Your task to perform on an android device: uninstall "Spotify: Music and Podcasts" Image 0: 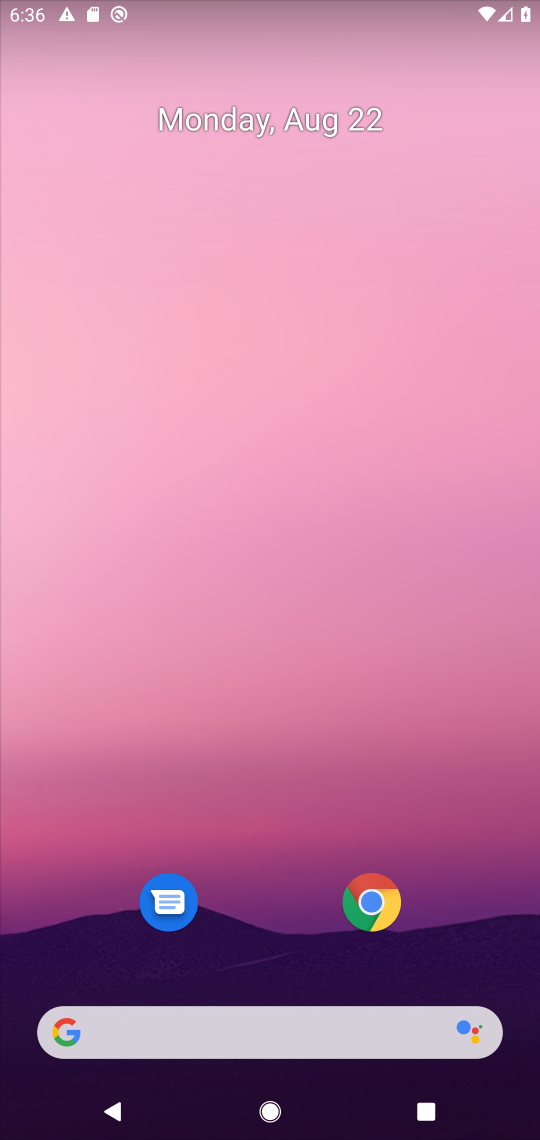
Step 0: drag from (230, 951) to (246, 10)
Your task to perform on an android device: uninstall "Spotify: Music and Podcasts" Image 1: 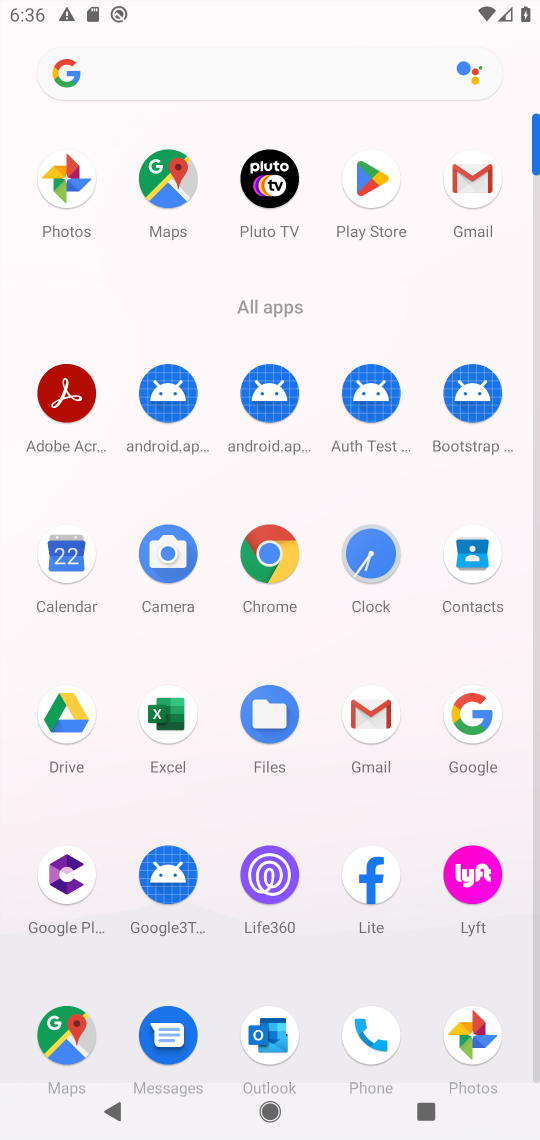
Step 1: click (366, 179)
Your task to perform on an android device: uninstall "Spotify: Music and Podcasts" Image 2: 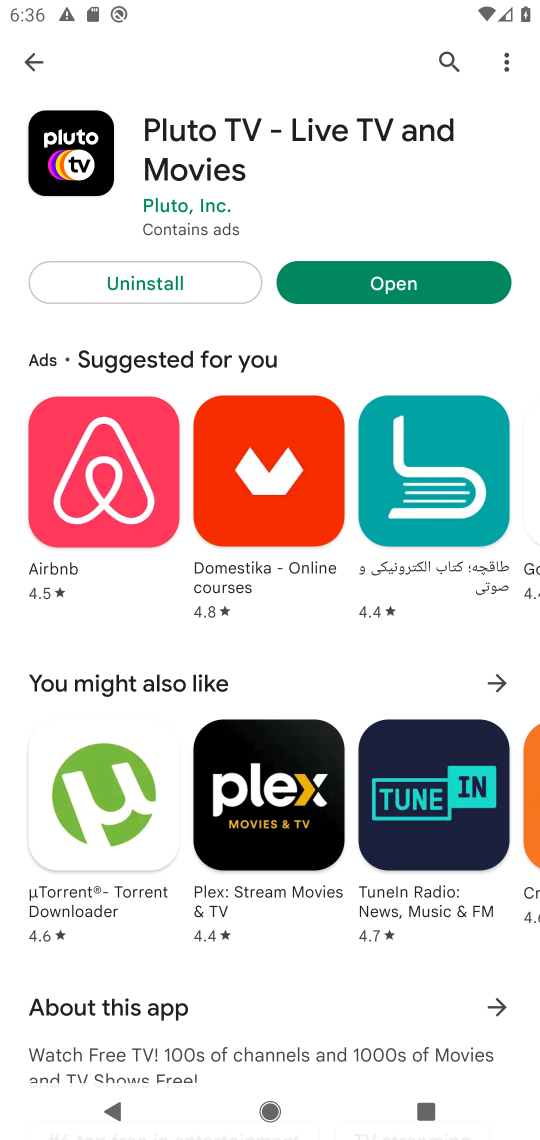
Step 2: click (29, 70)
Your task to perform on an android device: uninstall "Spotify: Music and Podcasts" Image 3: 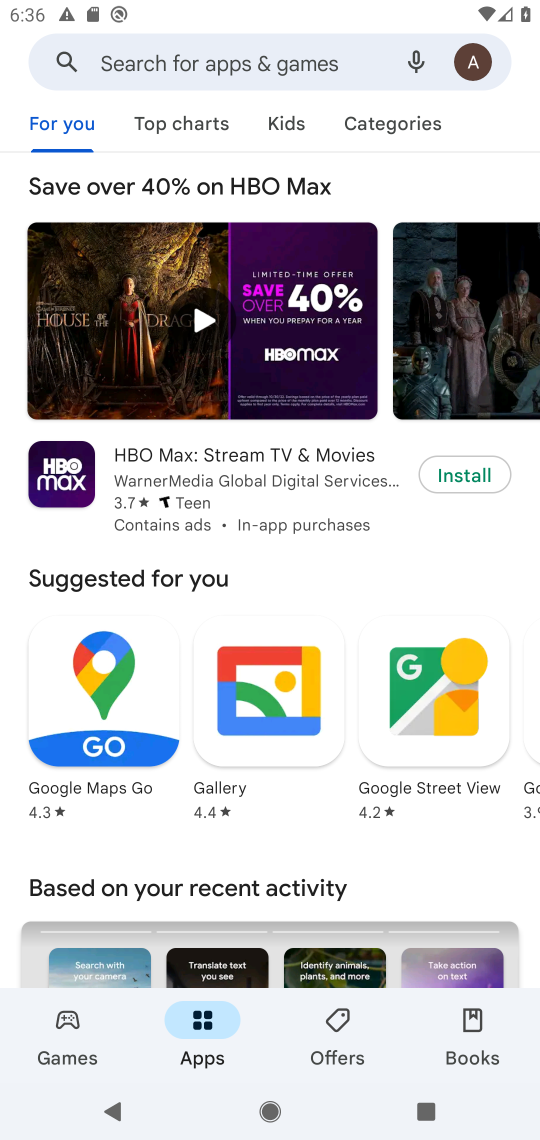
Step 3: click (157, 70)
Your task to perform on an android device: uninstall "Spotify: Music and Podcasts" Image 4: 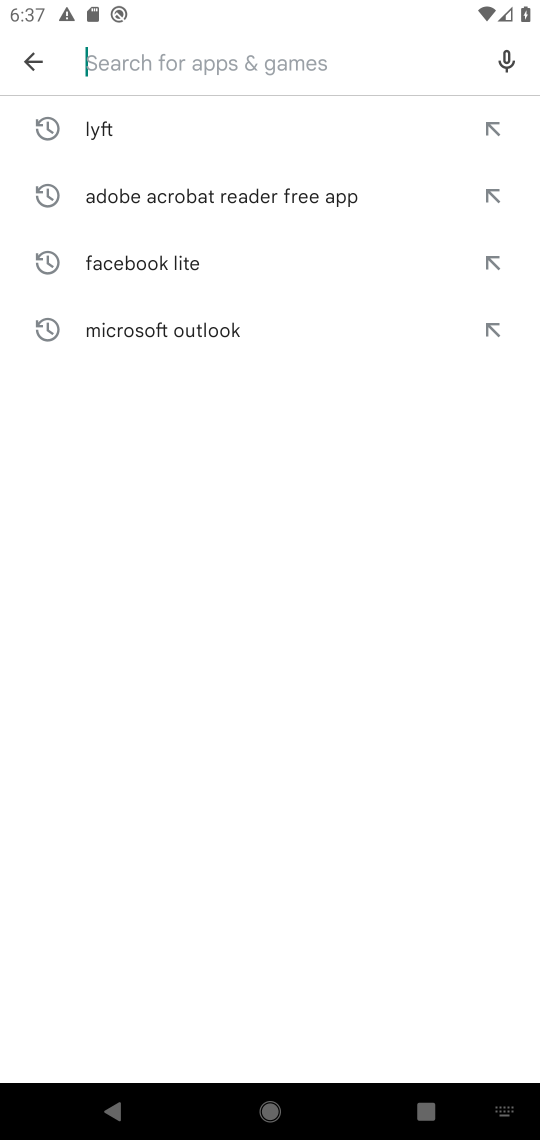
Step 4: type "Spotify"
Your task to perform on an android device: uninstall "Spotify: Music and Podcasts" Image 5: 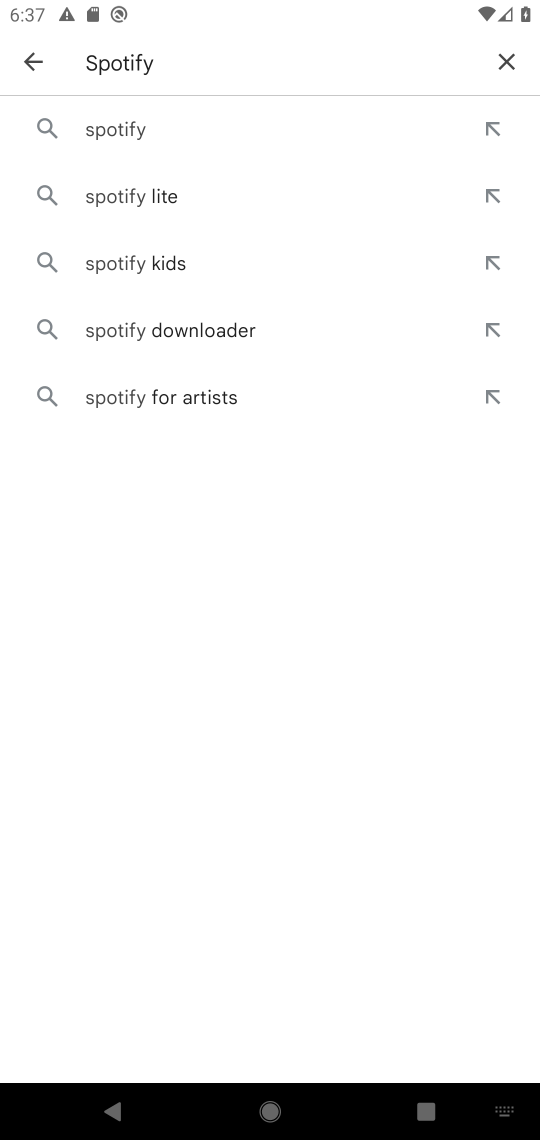
Step 5: click (119, 124)
Your task to perform on an android device: uninstall "Spotify: Music and Podcasts" Image 6: 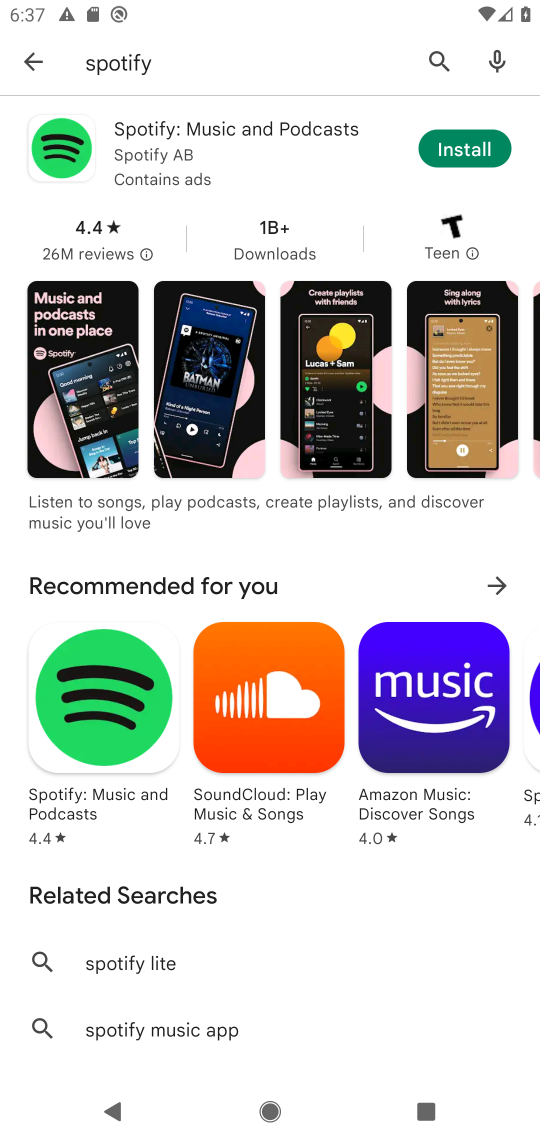
Step 6: click (482, 153)
Your task to perform on an android device: uninstall "Spotify: Music and Podcasts" Image 7: 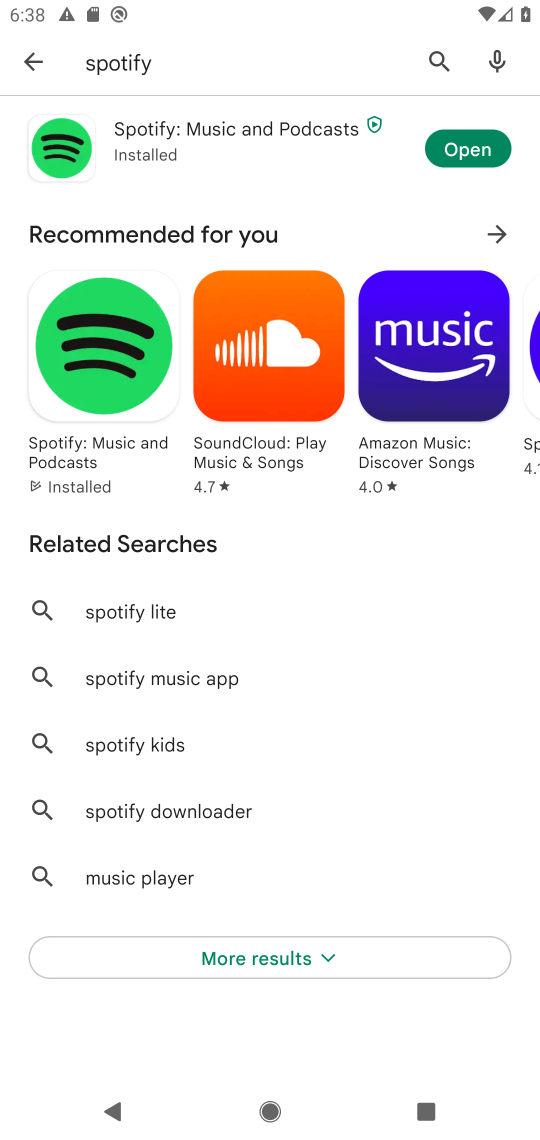
Step 7: click (493, 148)
Your task to perform on an android device: uninstall "Spotify: Music and Podcasts" Image 8: 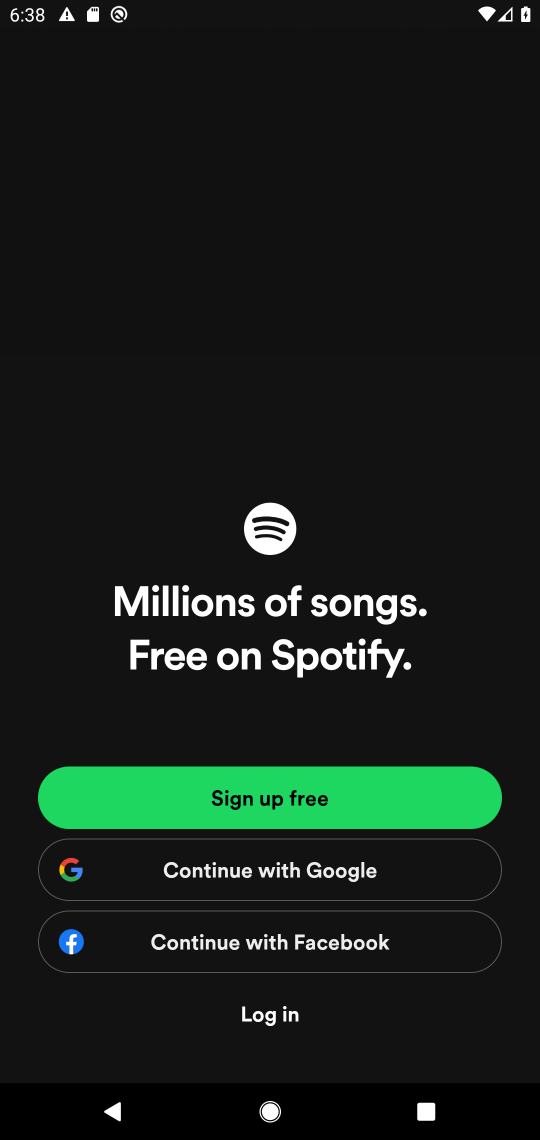
Step 8: task complete